Your task to perform on an android device: open app "Spotify" (install if not already installed) and go to login screen Image 0: 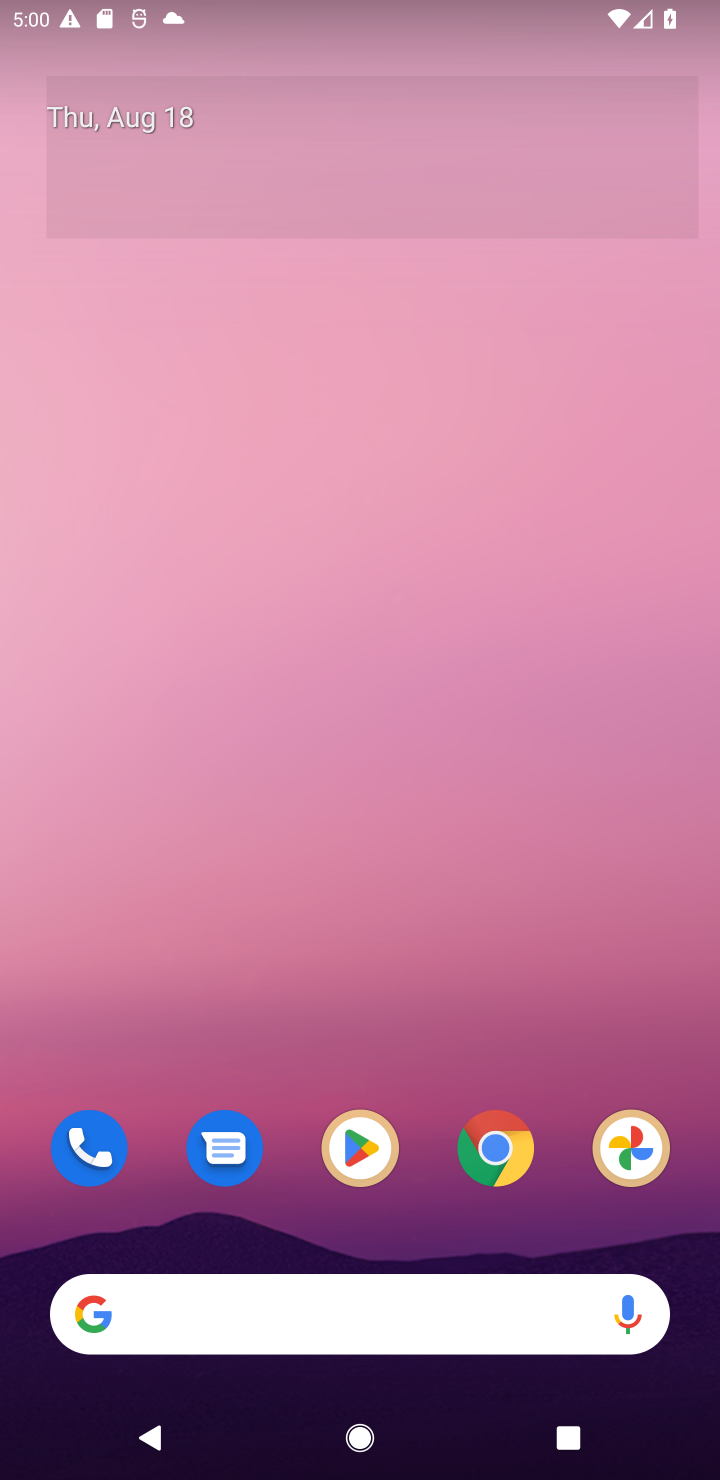
Step 0: drag from (451, 655) to (309, 17)
Your task to perform on an android device: open app "Spotify" (install if not already installed) and go to login screen Image 1: 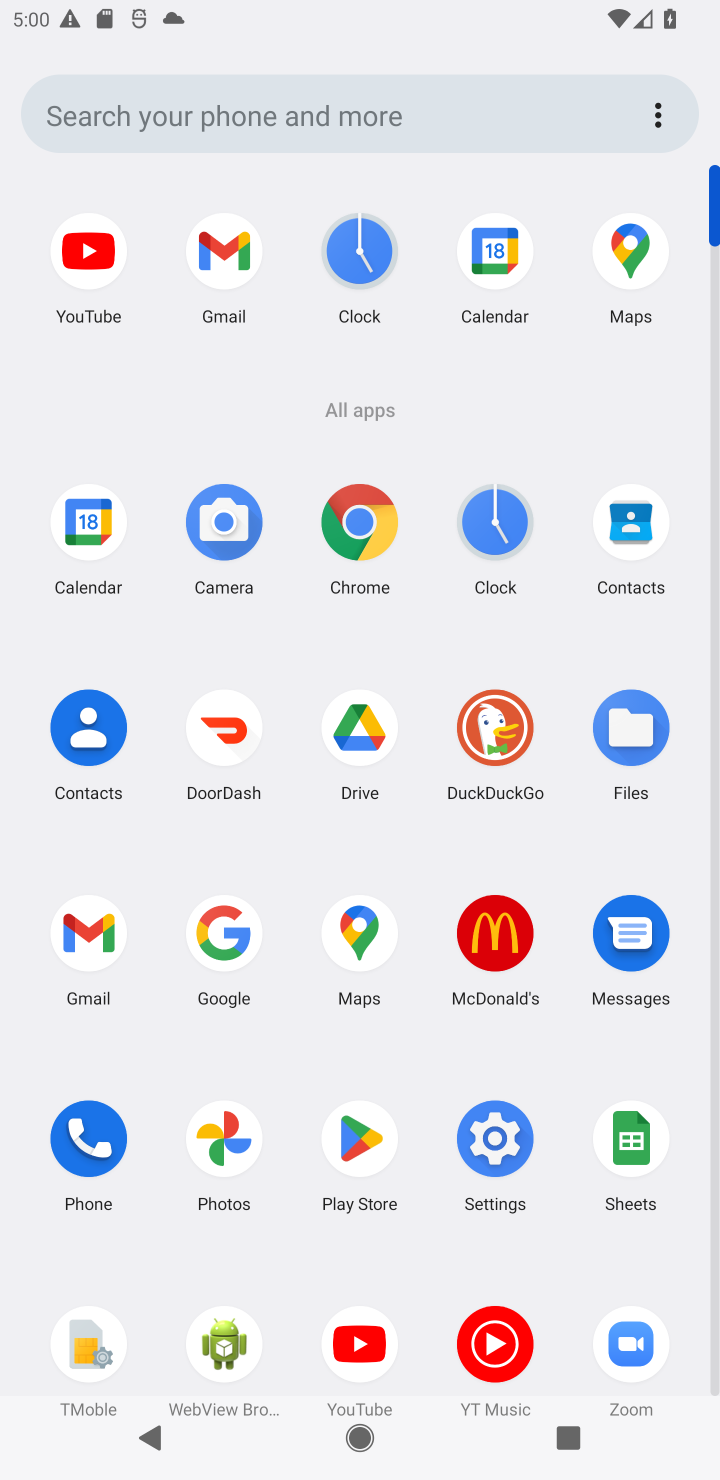
Step 1: click (335, 1128)
Your task to perform on an android device: open app "Spotify" (install if not already installed) and go to login screen Image 2: 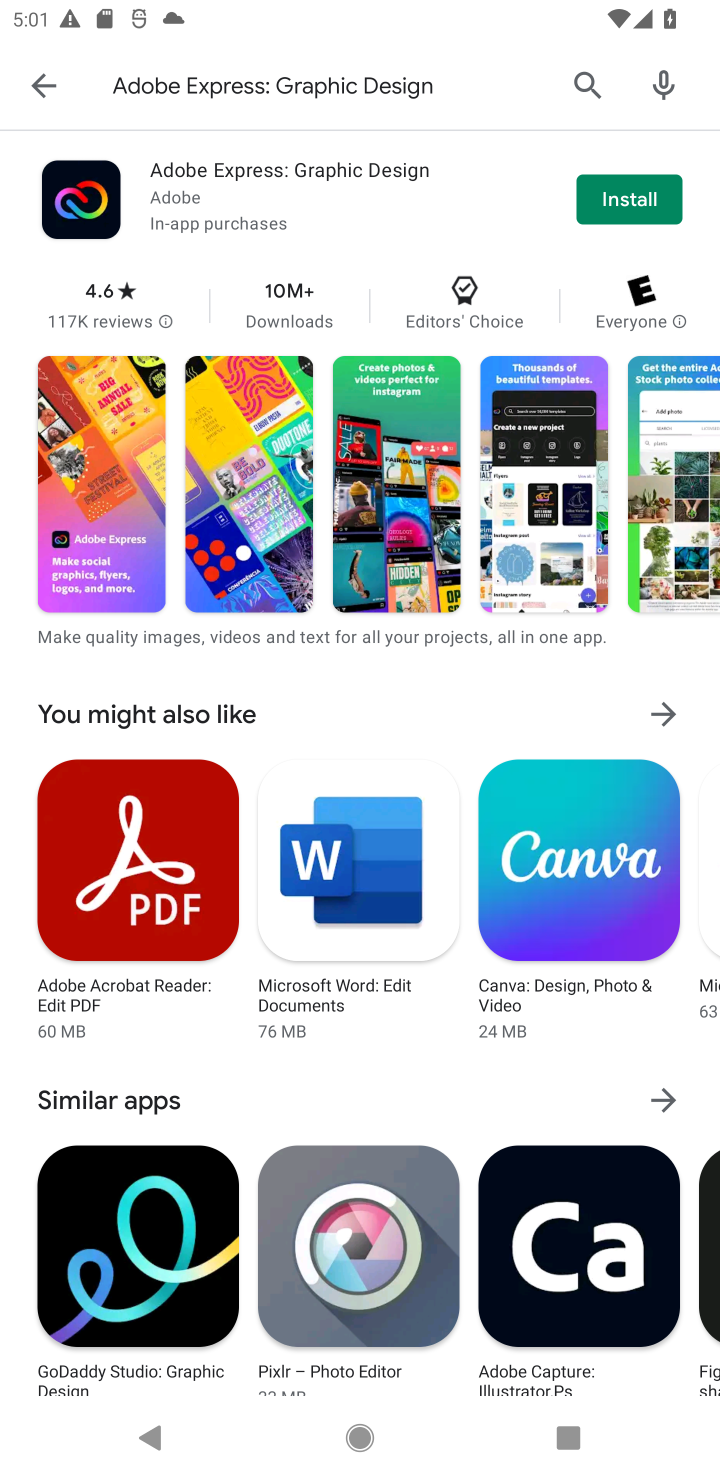
Step 2: click (56, 70)
Your task to perform on an android device: open app "Spotify" (install if not already installed) and go to login screen Image 3: 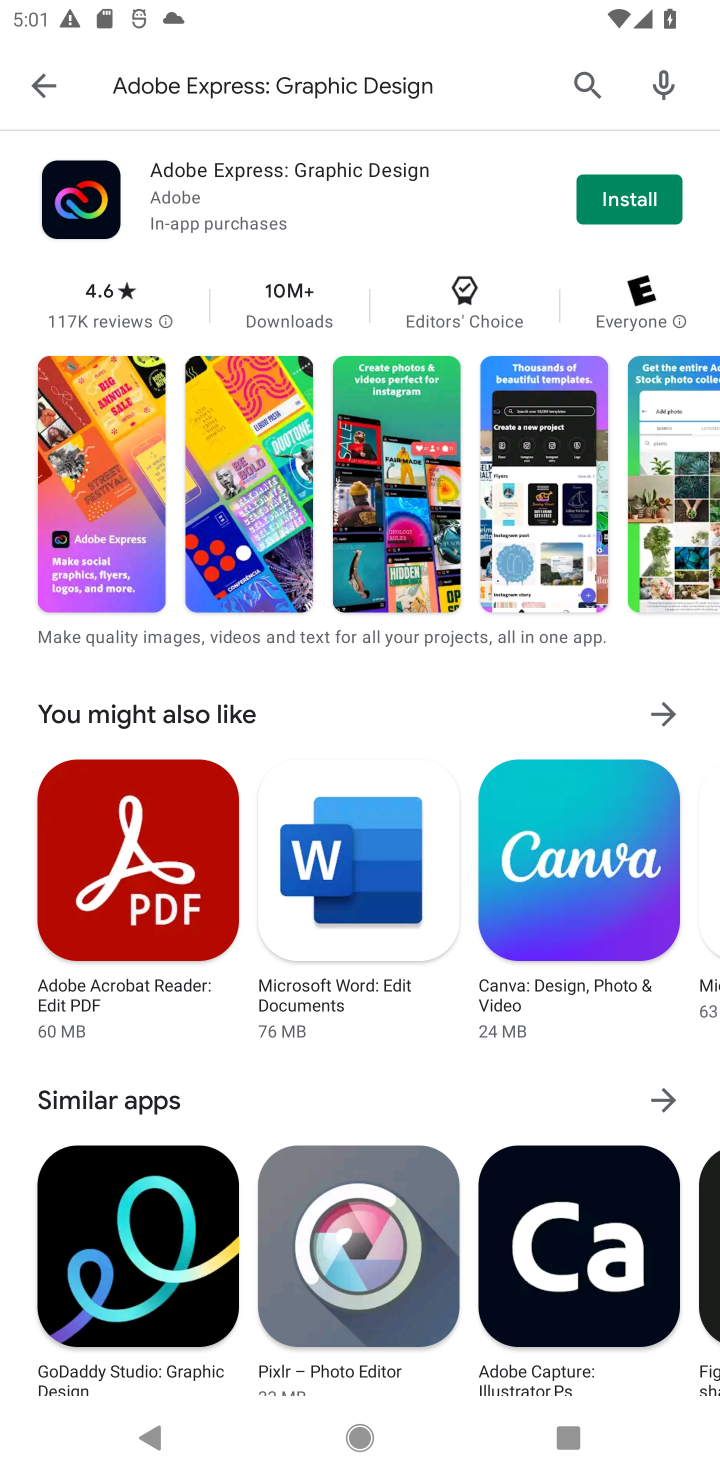
Step 3: click (49, 91)
Your task to perform on an android device: open app "Spotify" (install if not already installed) and go to login screen Image 4: 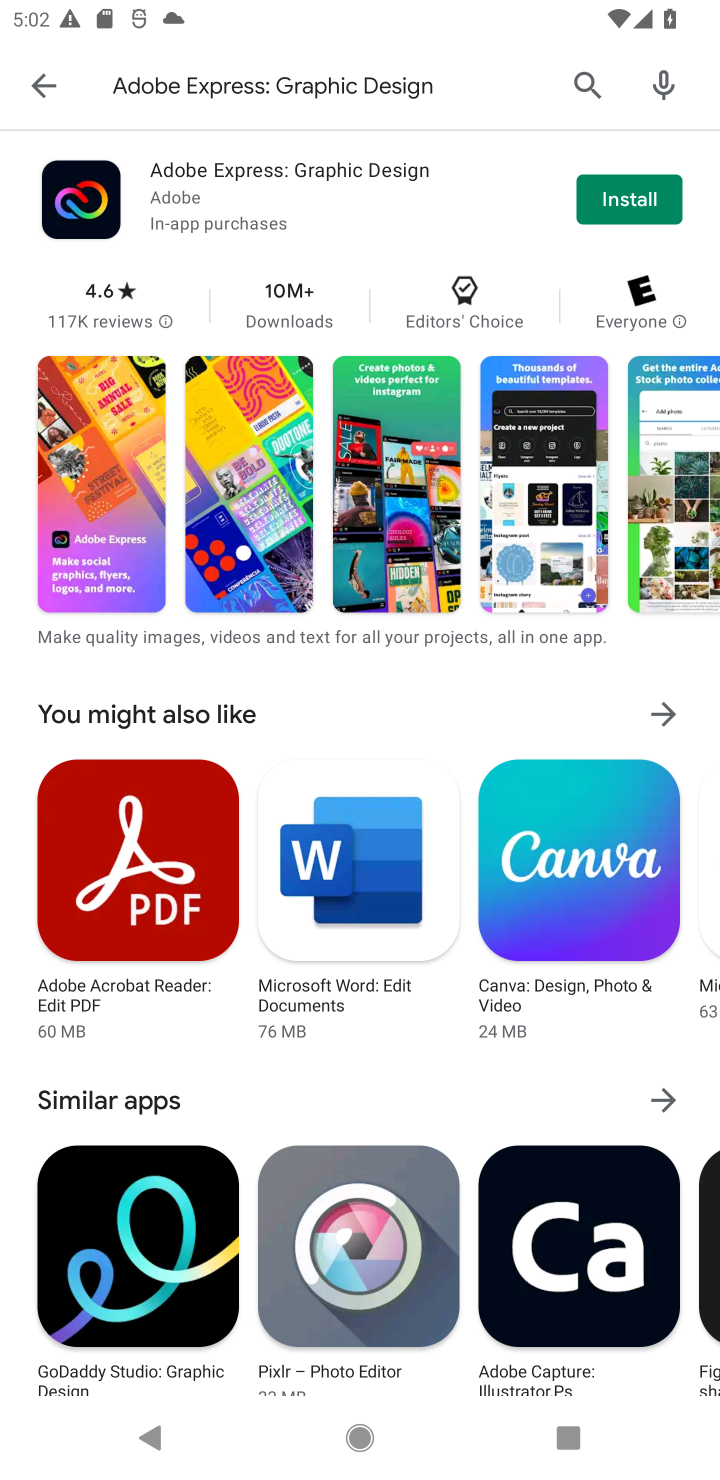
Step 4: press back button
Your task to perform on an android device: open app "Spotify" (install if not already installed) and go to login screen Image 5: 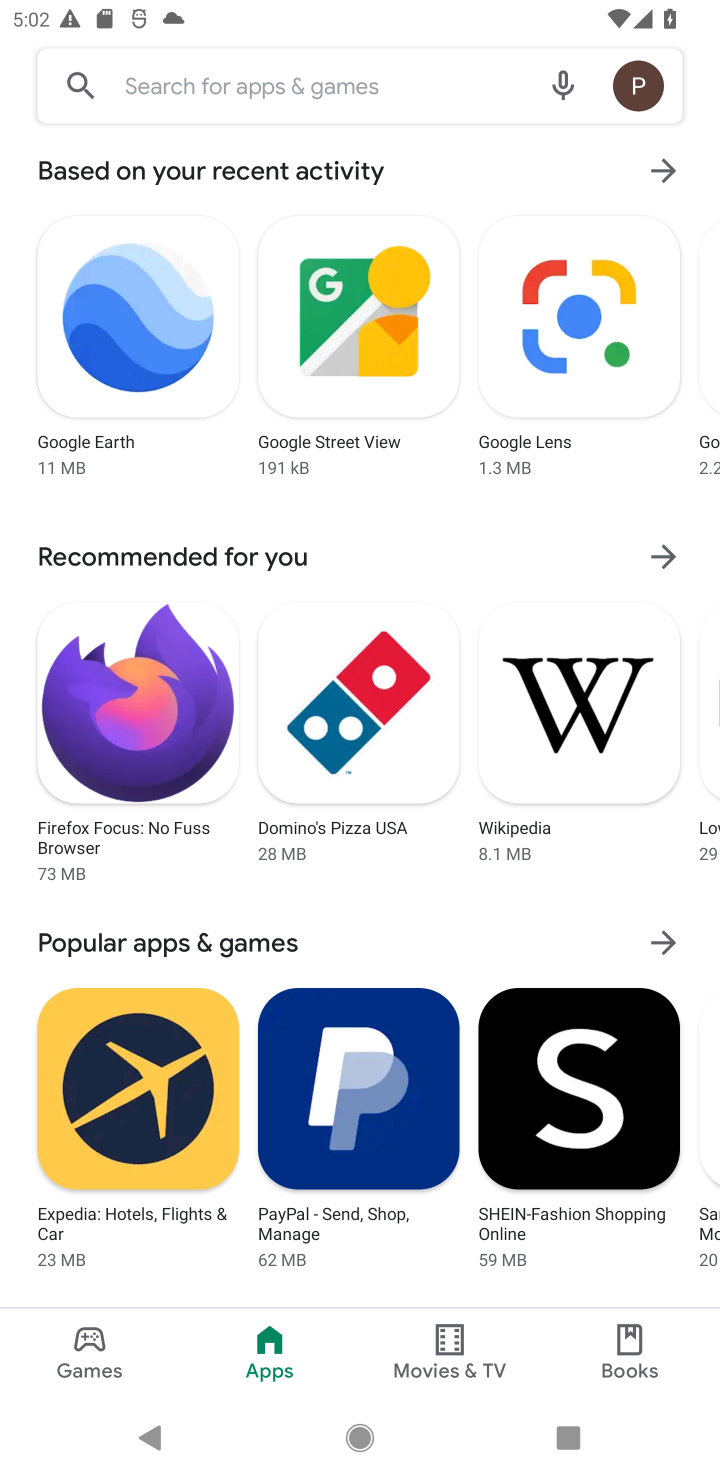
Step 5: click (195, 75)
Your task to perform on an android device: open app "Spotify" (install if not already installed) and go to login screen Image 6: 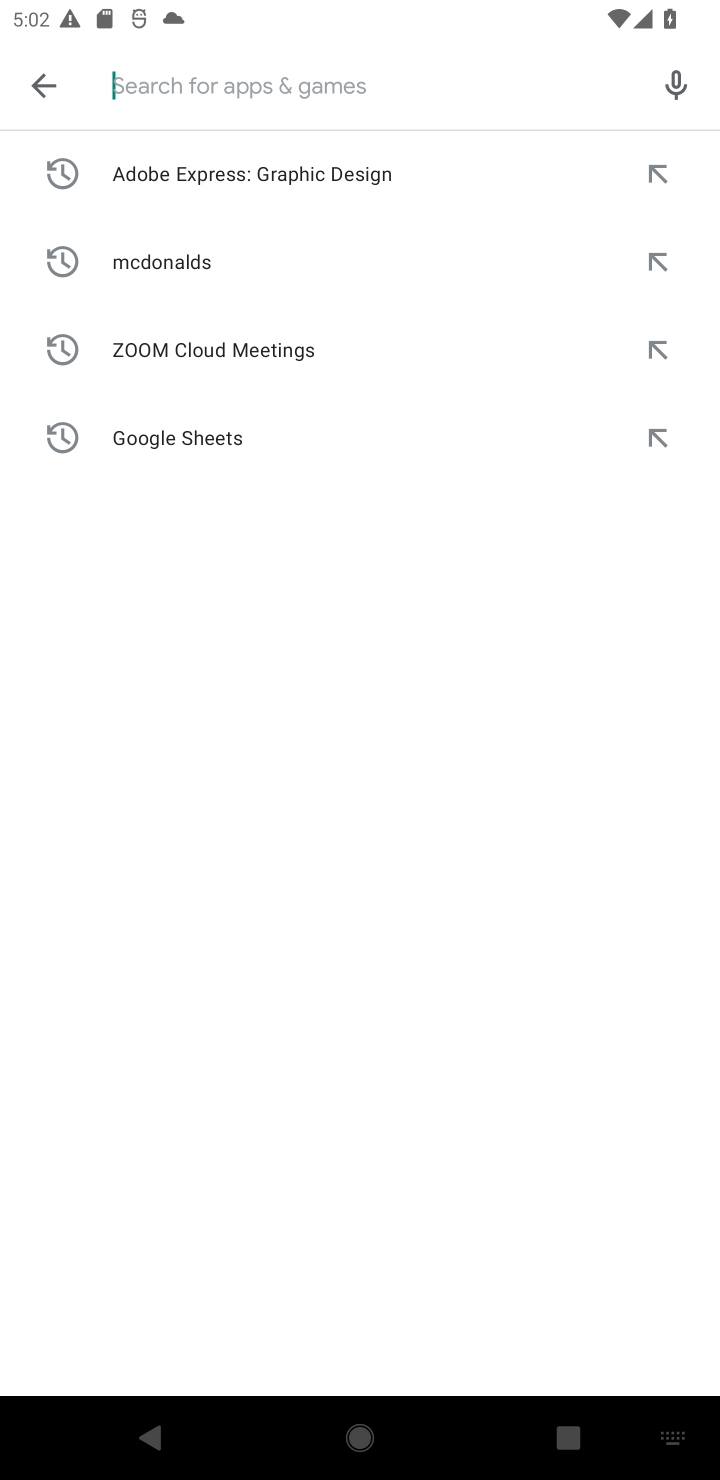
Step 6: type "Spotify"
Your task to perform on an android device: open app "Spotify" (install if not already installed) and go to login screen Image 7: 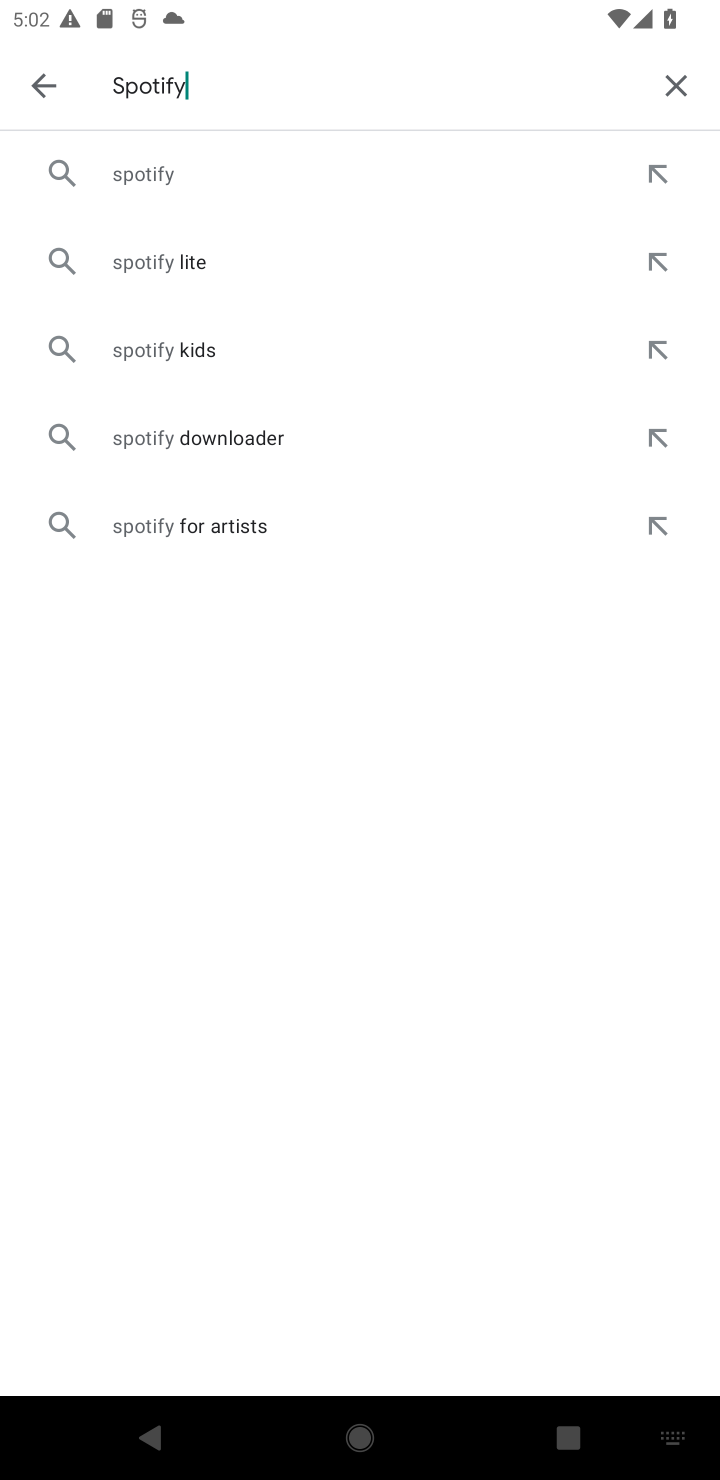
Step 7: press enter
Your task to perform on an android device: open app "Spotify" (install if not already installed) and go to login screen Image 8: 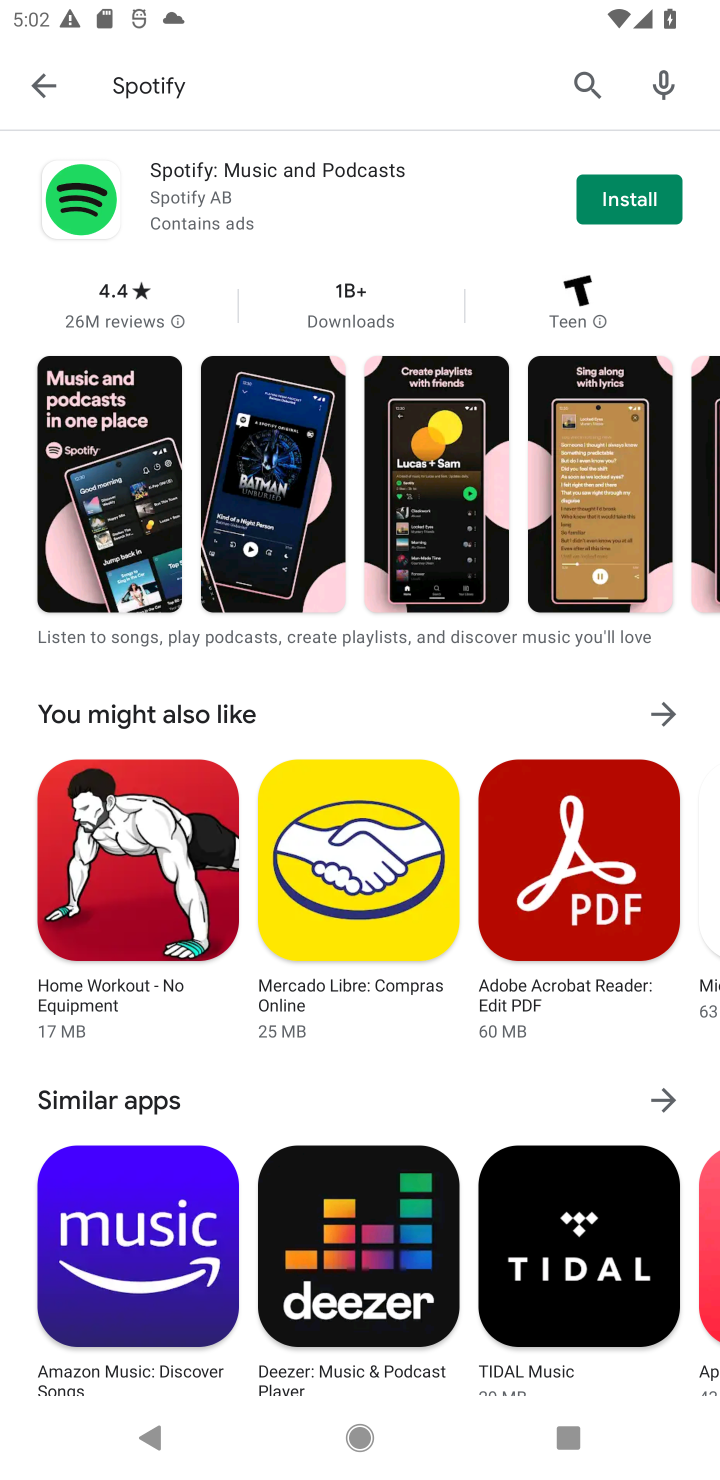
Step 8: click (635, 207)
Your task to perform on an android device: open app "Spotify" (install if not already installed) and go to login screen Image 9: 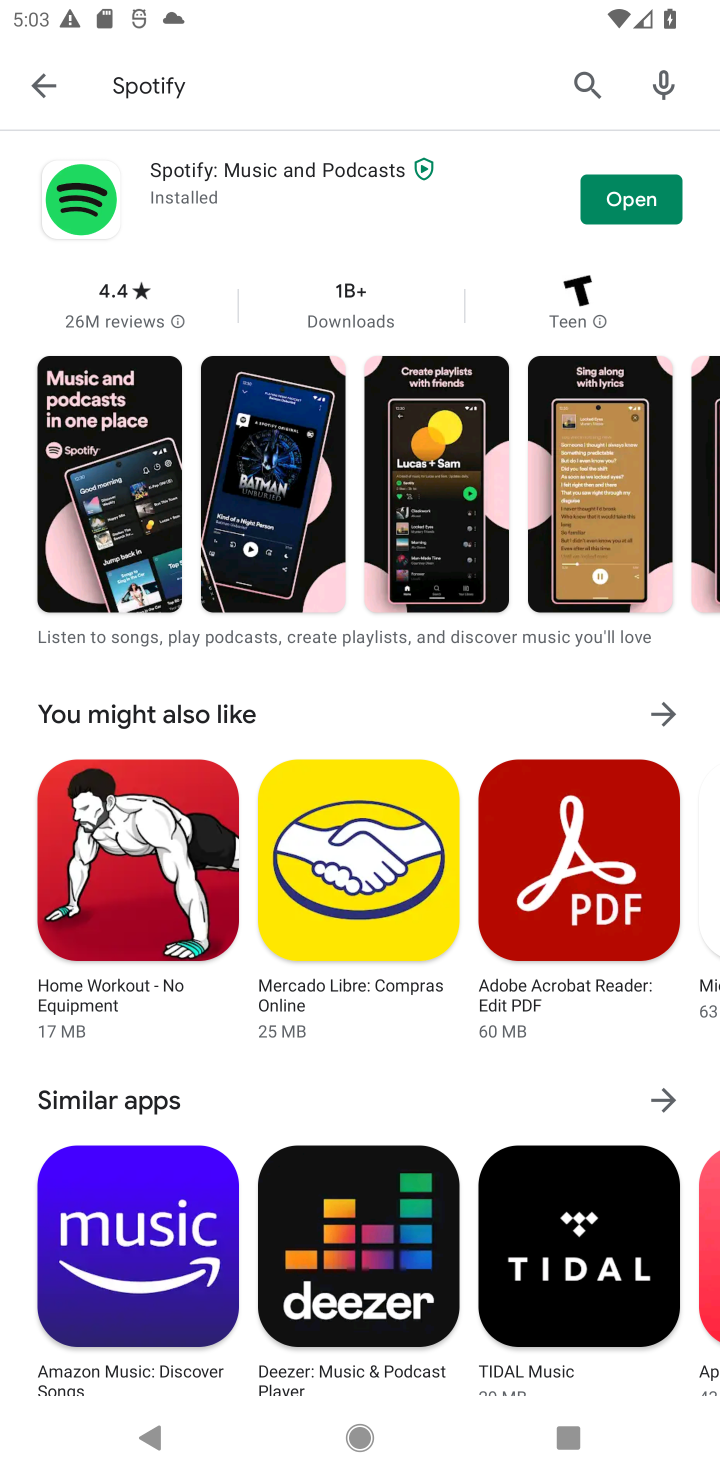
Step 9: click (642, 196)
Your task to perform on an android device: open app "Spotify" (install if not already installed) and go to login screen Image 10: 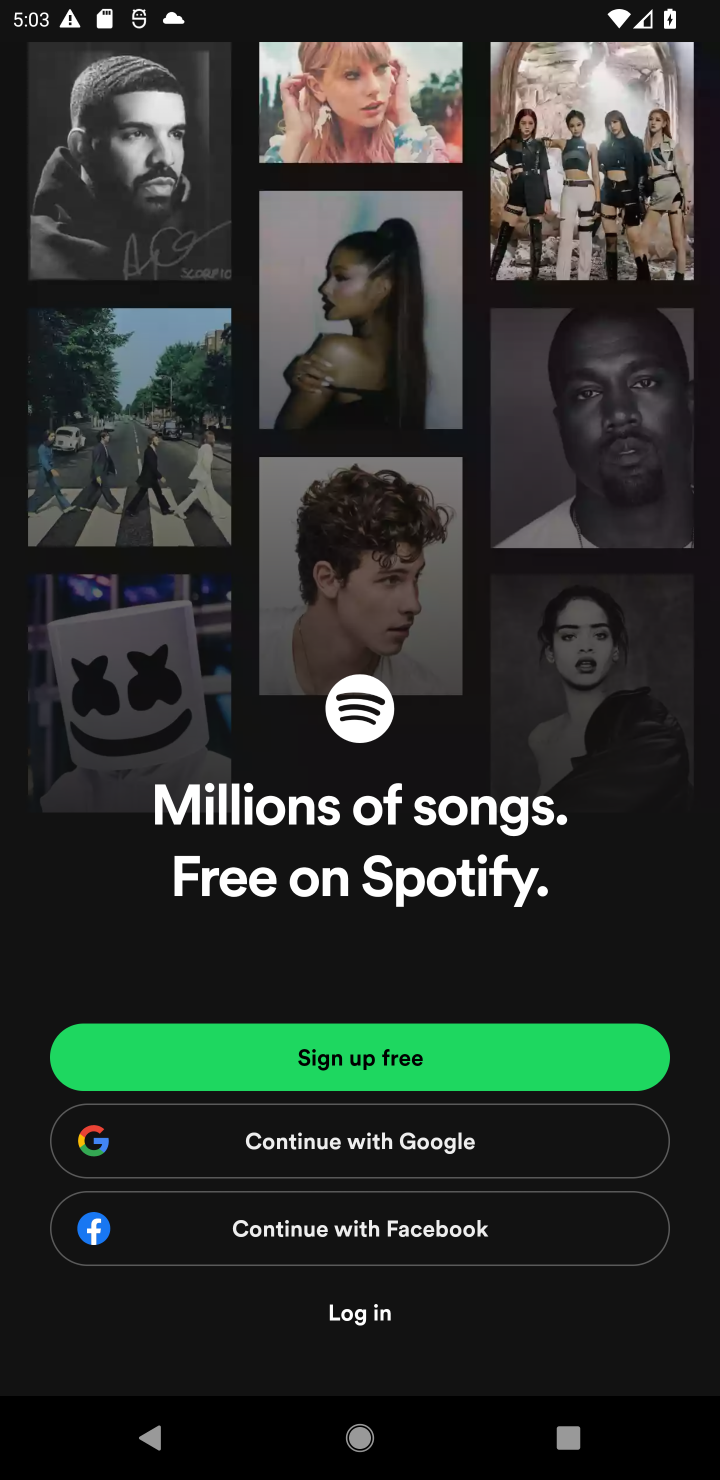
Step 10: task complete